Your task to perform on an android device: uninstall "LiveIn - Share Your Moment" Image 0: 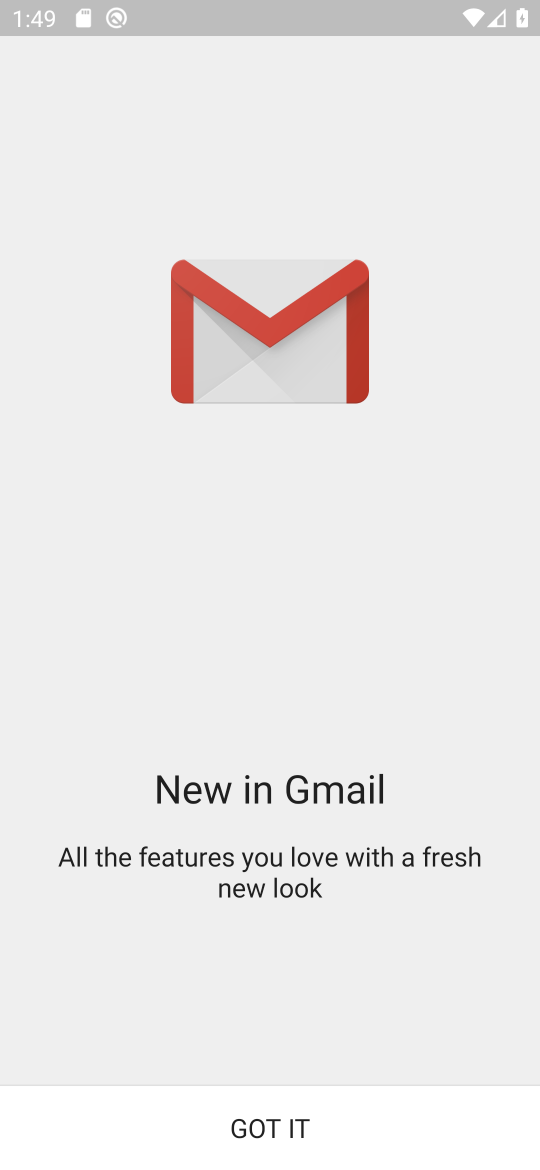
Step 0: click (276, 1135)
Your task to perform on an android device: uninstall "LiveIn - Share Your Moment" Image 1: 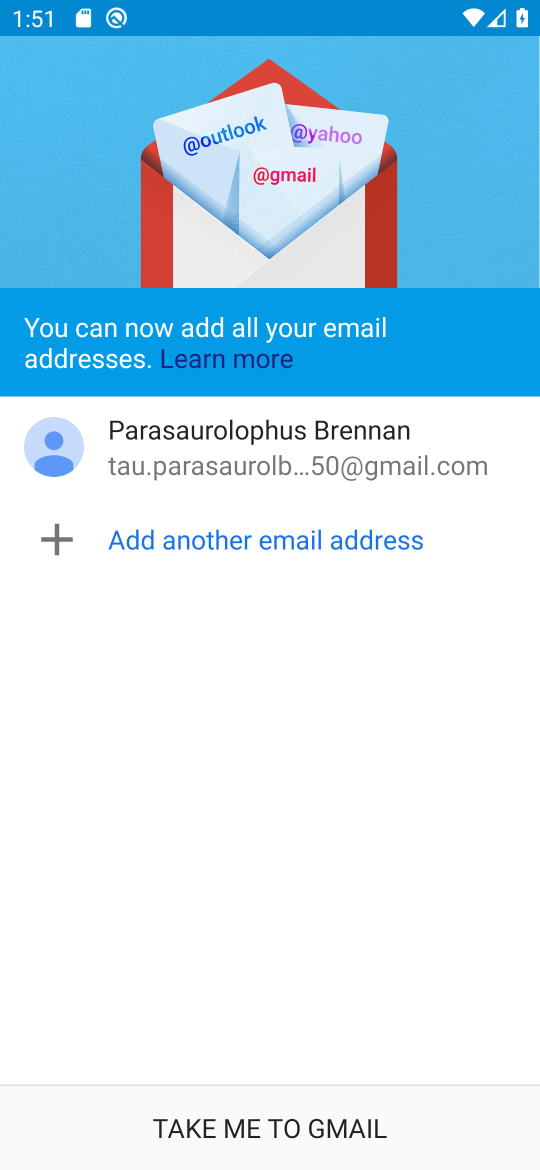
Step 1: press home button
Your task to perform on an android device: uninstall "LiveIn - Share Your Moment" Image 2: 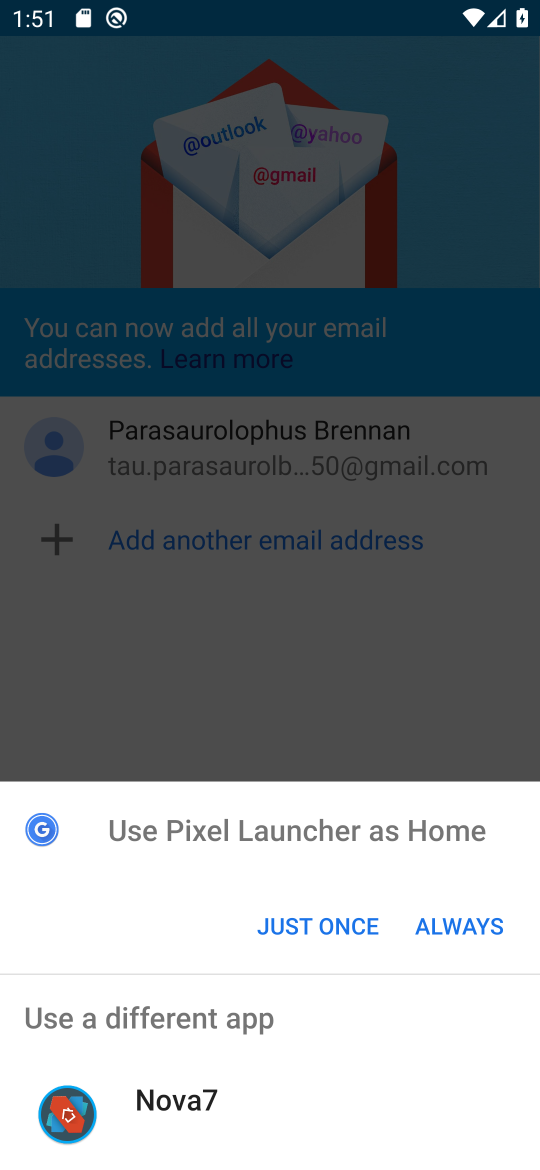
Step 2: click (336, 926)
Your task to perform on an android device: uninstall "LiveIn - Share Your Moment" Image 3: 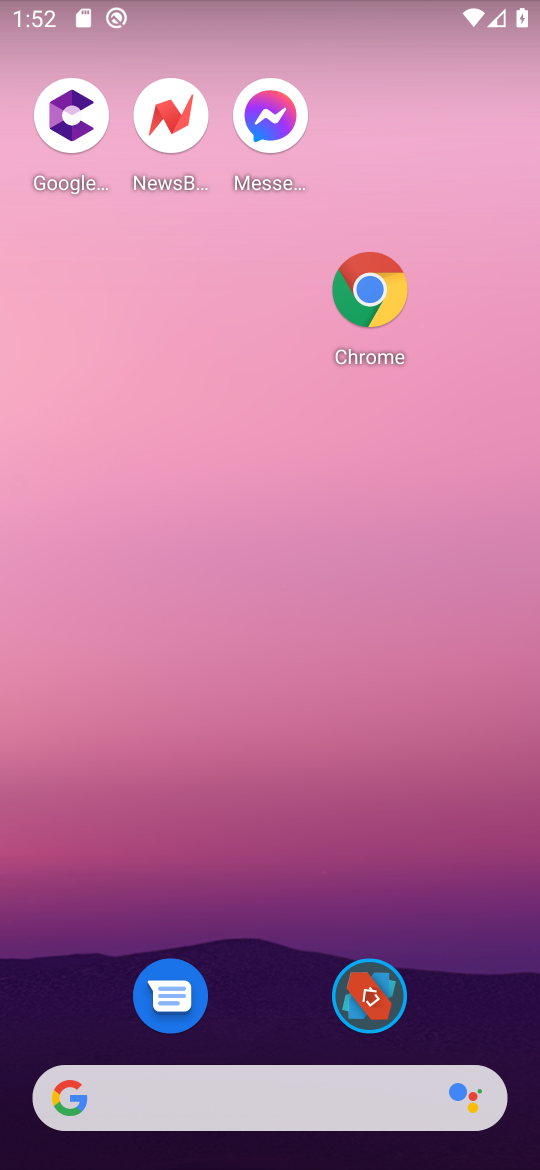
Step 3: drag from (320, 978) to (222, 176)
Your task to perform on an android device: uninstall "LiveIn - Share Your Moment" Image 4: 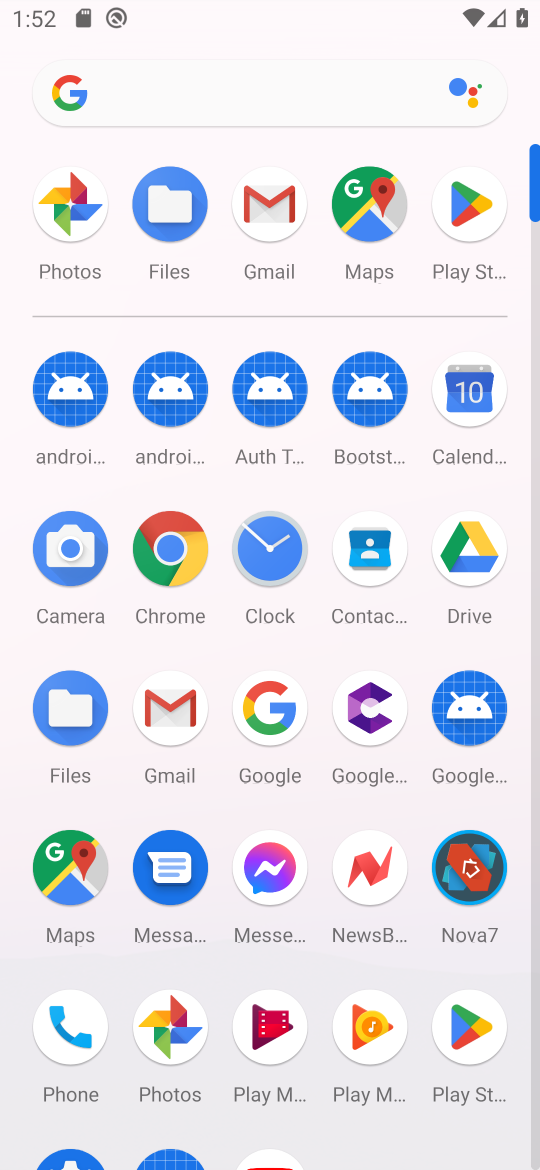
Step 4: click (468, 221)
Your task to perform on an android device: uninstall "LiveIn - Share Your Moment" Image 5: 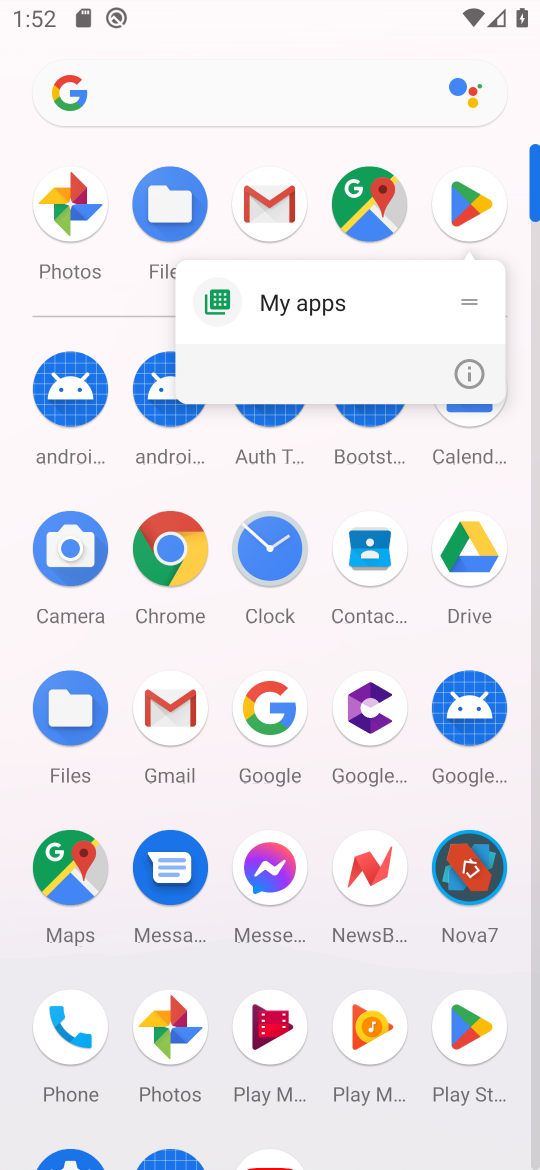
Step 5: click (467, 213)
Your task to perform on an android device: uninstall "LiveIn - Share Your Moment" Image 6: 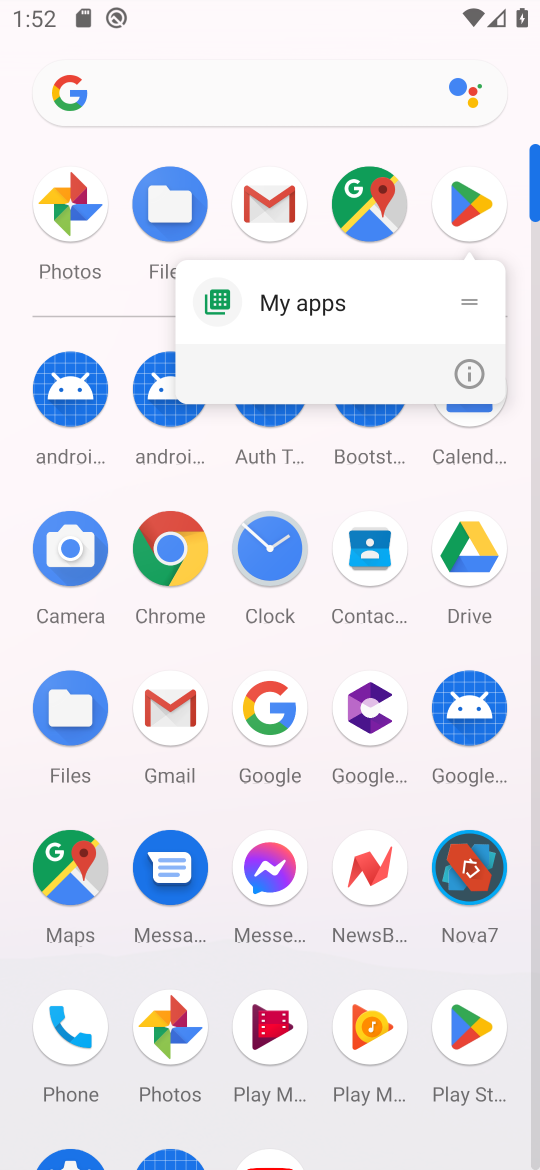
Step 6: click (467, 212)
Your task to perform on an android device: uninstall "LiveIn - Share Your Moment" Image 7: 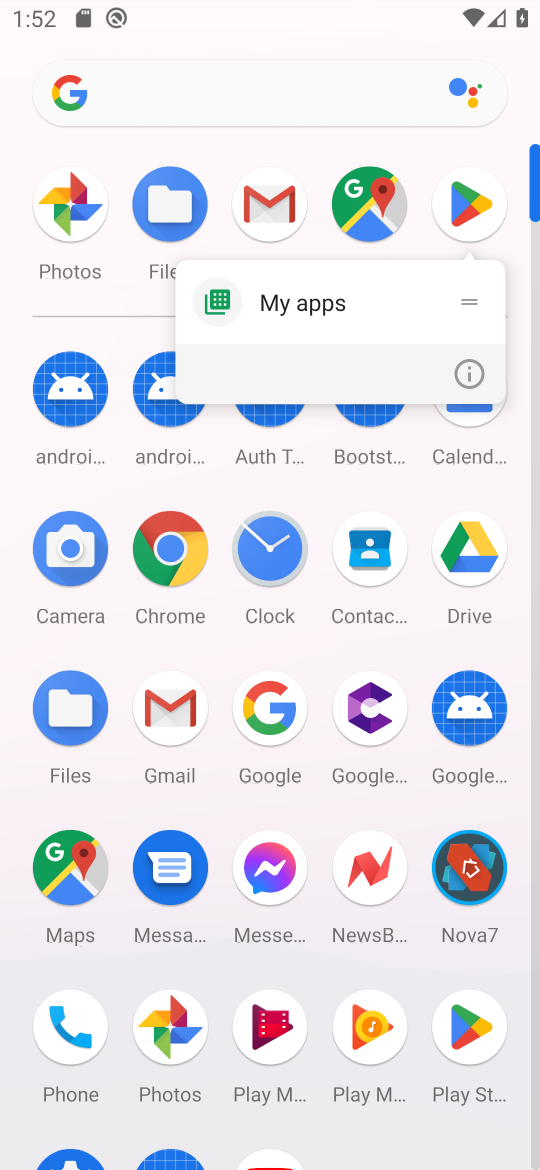
Step 7: click (467, 212)
Your task to perform on an android device: uninstall "LiveIn - Share Your Moment" Image 8: 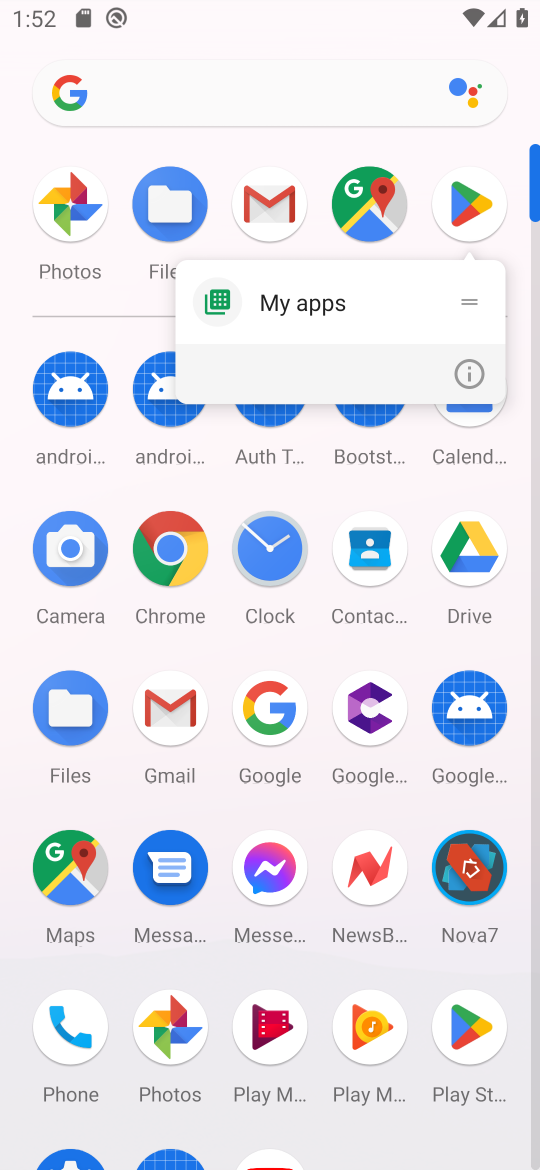
Step 8: click (467, 211)
Your task to perform on an android device: uninstall "LiveIn - Share Your Moment" Image 9: 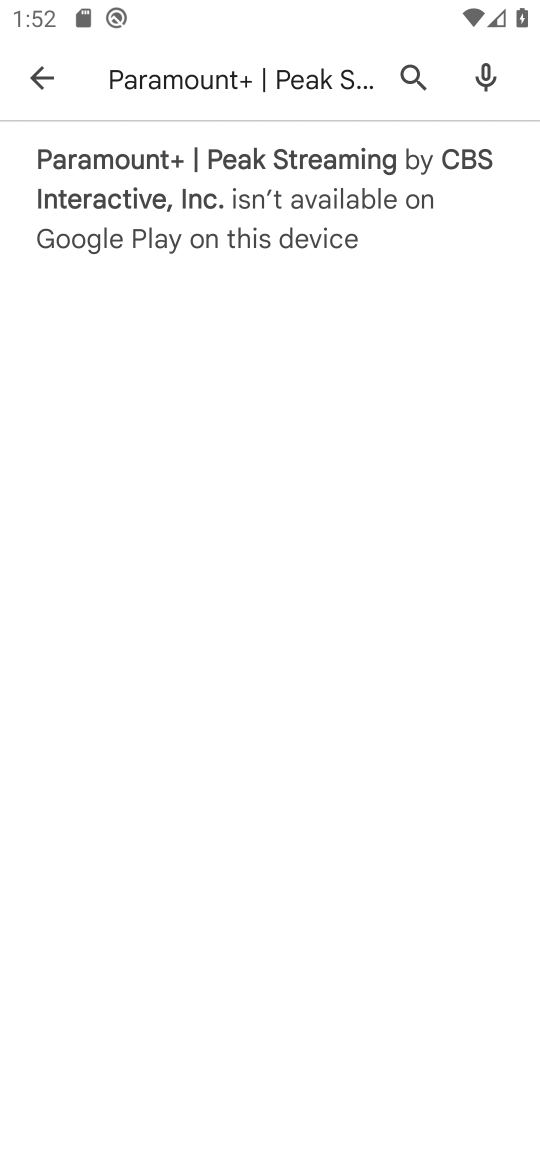
Step 9: press back button
Your task to perform on an android device: uninstall "LiveIn - Share Your Moment" Image 10: 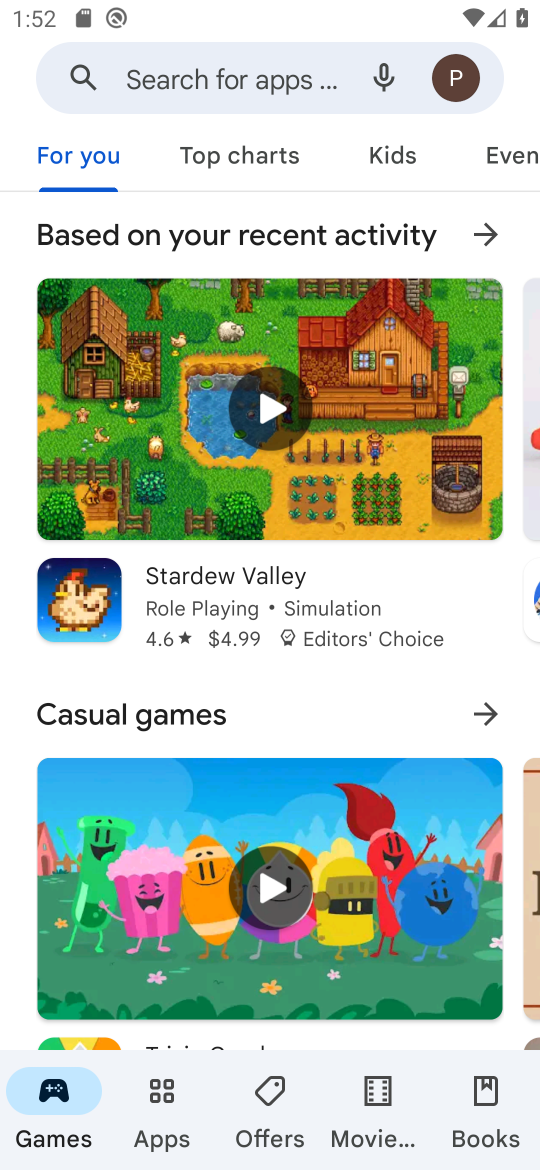
Step 10: click (213, 80)
Your task to perform on an android device: uninstall "LiveIn - Share Your Moment" Image 11: 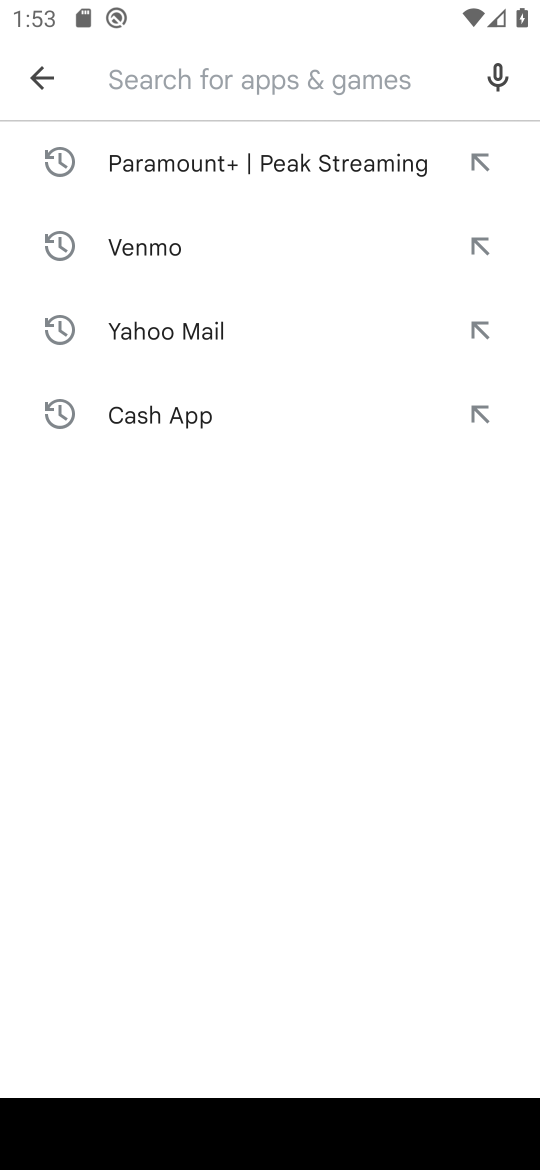
Step 11: click (376, 1167)
Your task to perform on an android device: uninstall "LiveIn - Share Your Moment" Image 12: 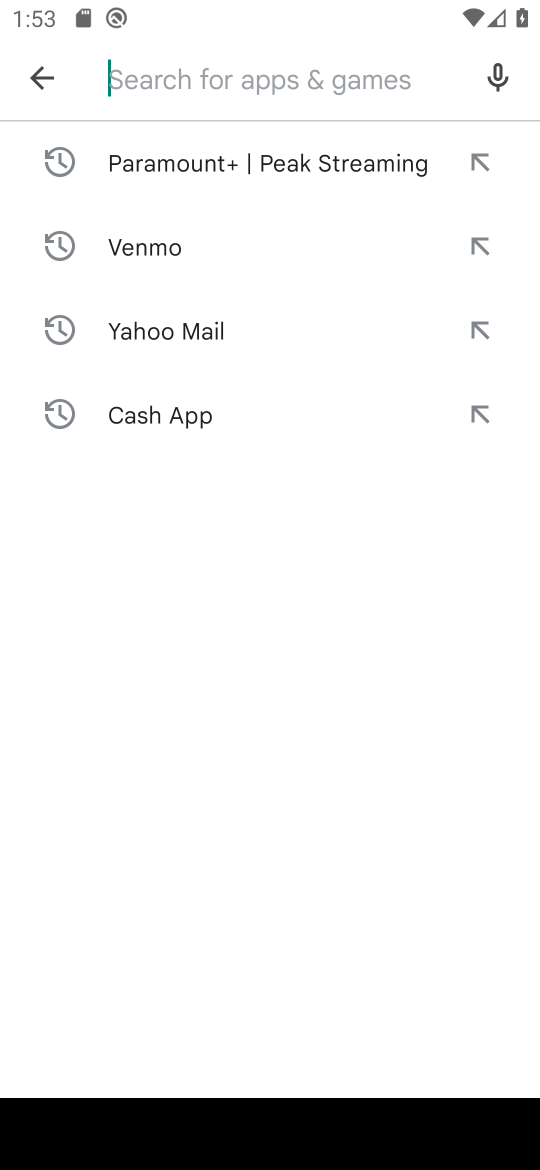
Step 12: type "LiveIn - Share Your Moment"
Your task to perform on an android device: uninstall "LiveIn - Share Your Moment" Image 13: 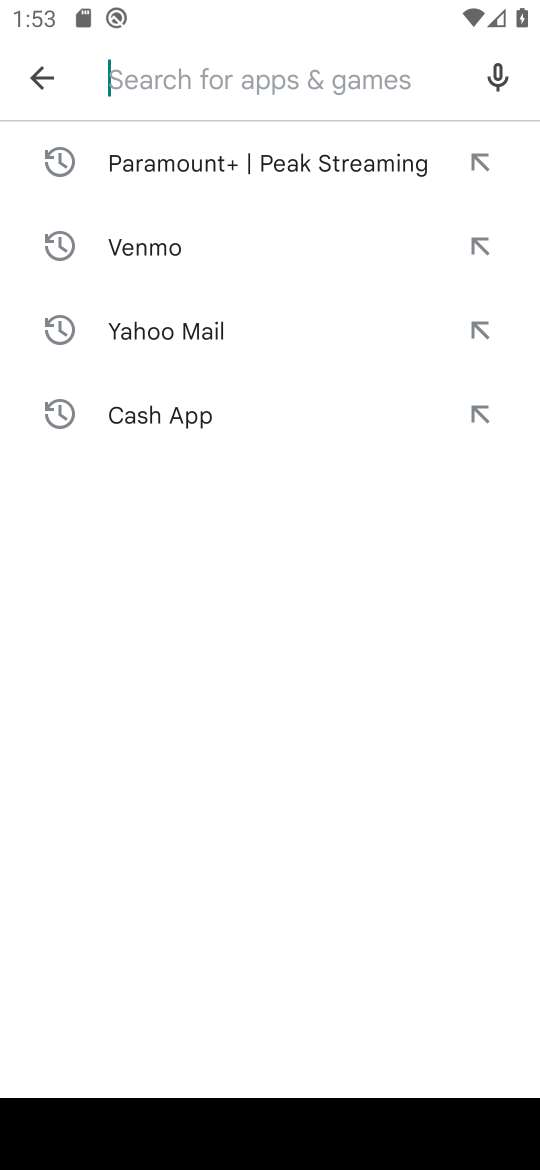
Step 13: click (382, 1167)
Your task to perform on an android device: uninstall "LiveIn - Share Your Moment" Image 14: 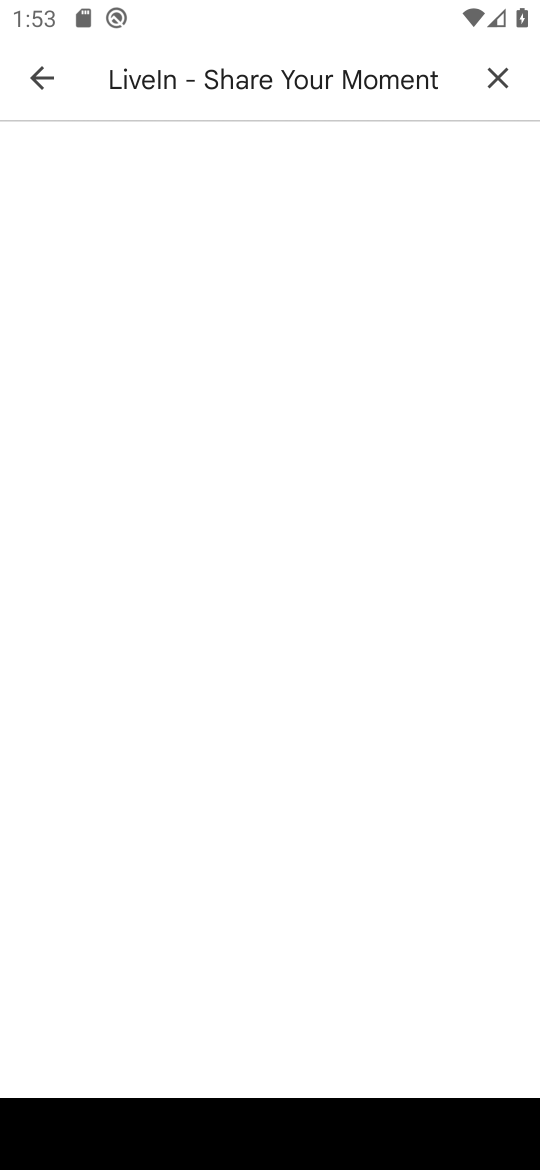
Step 14: press enter
Your task to perform on an android device: uninstall "LiveIn - Share Your Moment" Image 15: 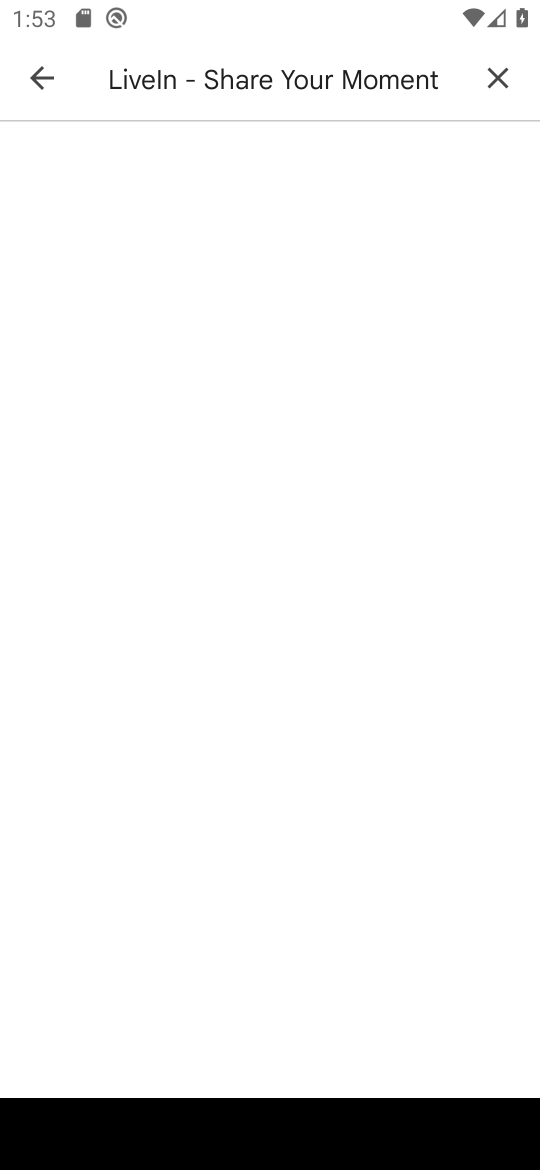
Step 15: click (382, 1167)
Your task to perform on an android device: uninstall "LiveIn - Share Your Moment" Image 16: 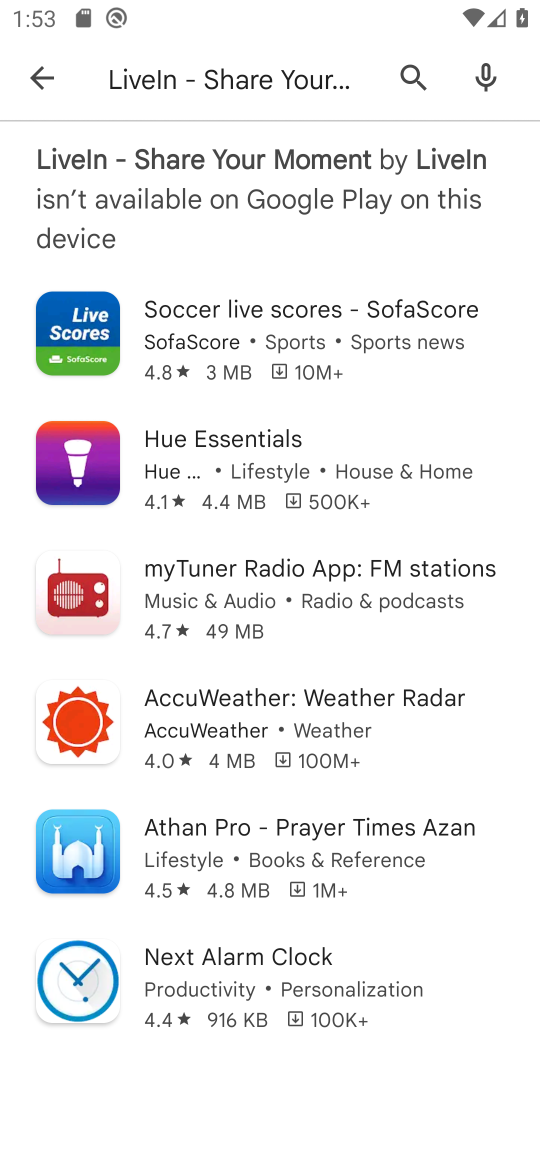
Step 16: task complete